Your task to perform on an android device: Go to settings Image 0: 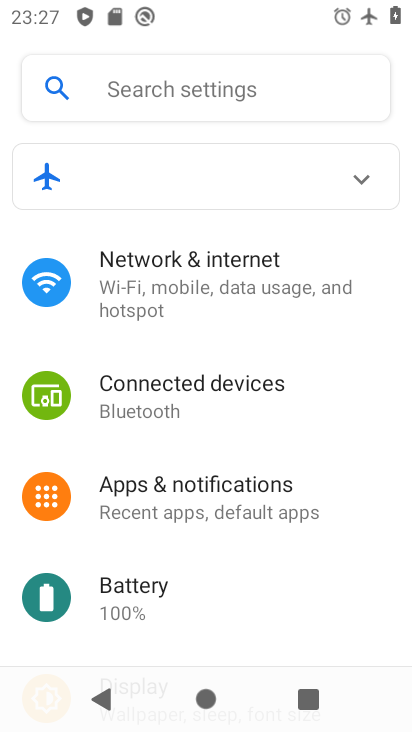
Step 0: task complete